Your task to perform on an android device: Go to wifi settings Image 0: 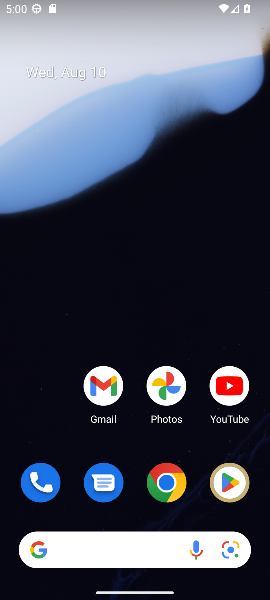
Step 0: drag from (59, 425) to (97, 43)
Your task to perform on an android device: Go to wifi settings Image 1: 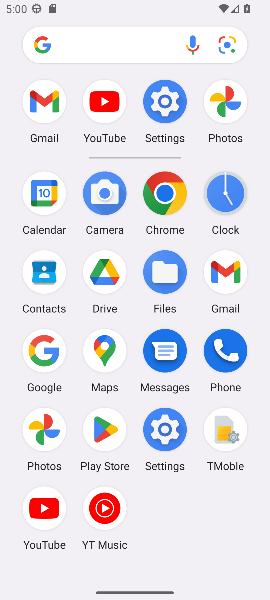
Step 1: click (160, 98)
Your task to perform on an android device: Go to wifi settings Image 2: 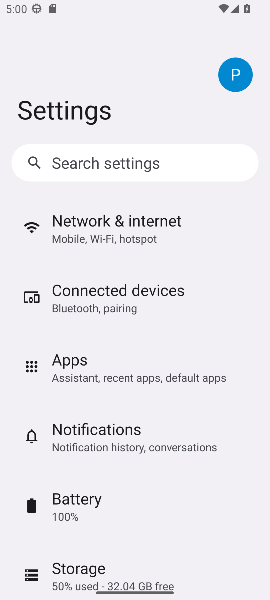
Step 2: click (148, 228)
Your task to perform on an android device: Go to wifi settings Image 3: 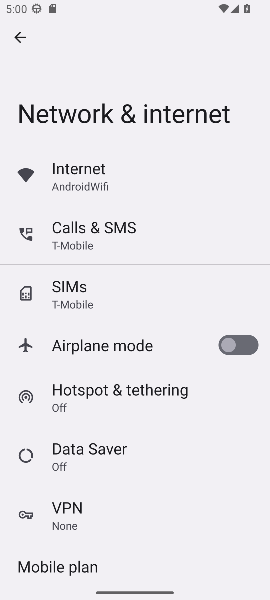
Step 3: click (101, 179)
Your task to perform on an android device: Go to wifi settings Image 4: 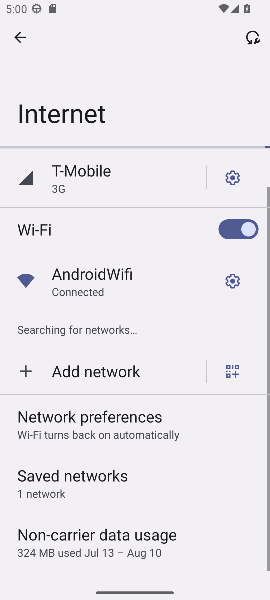
Step 4: task complete